Your task to perform on an android device: Go to internet settings Image 0: 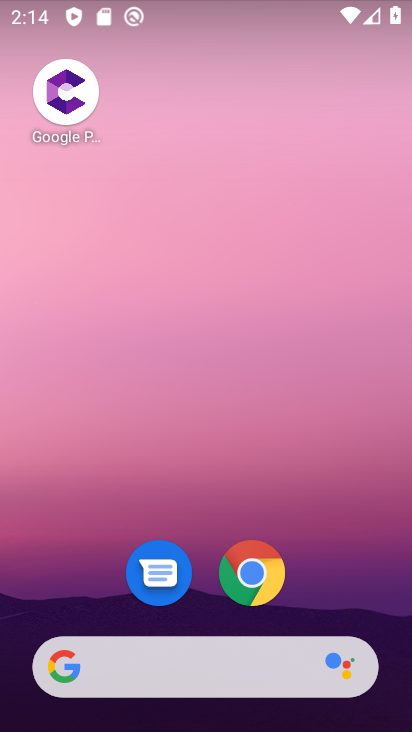
Step 0: drag from (358, 612) to (353, 2)
Your task to perform on an android device: Go to internet settings Image 1: 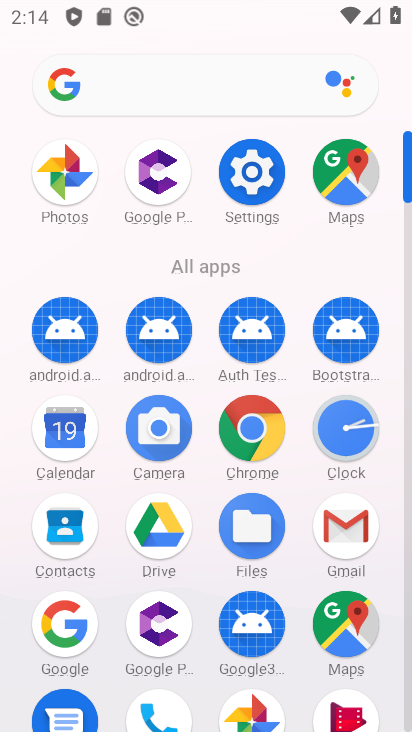
Step 1: click (255, 176)
Your task to perform on an android device: Go to internet settings Image 2: 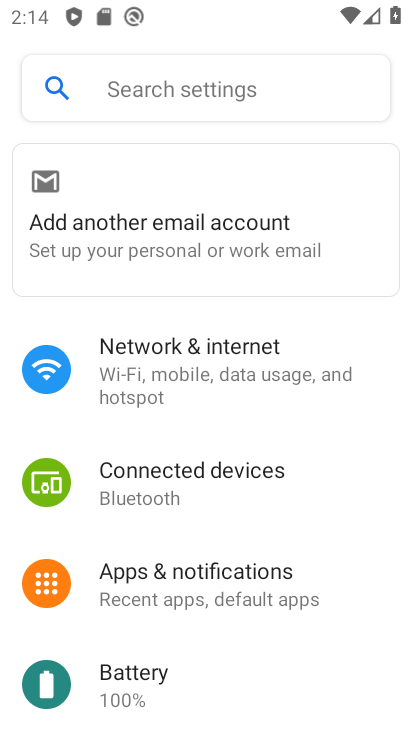
Step 2: click (154, 352)
Your task to perform on an android device: Go to internet settings Image 3: 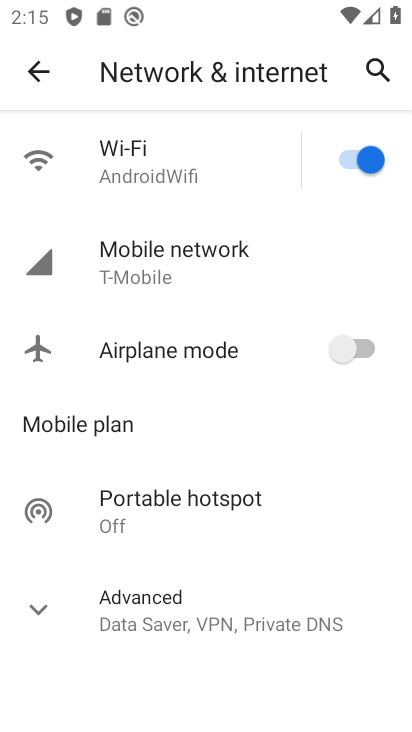
Step 3: task complete